Your task to perform on an android device: turn on priority inbox in the gmail app Image 0: 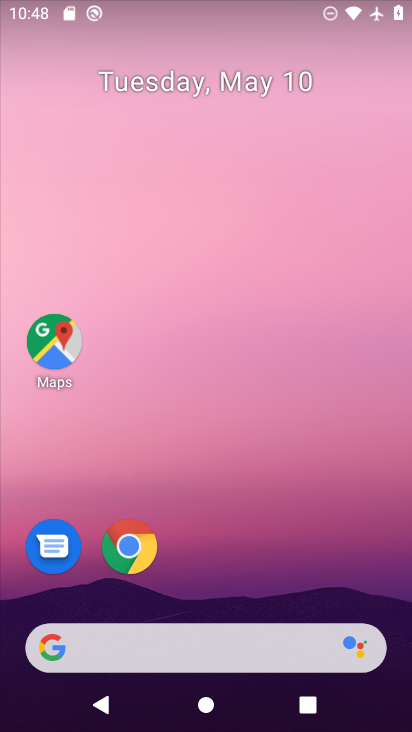
Step 0: drag from (301, 578) to (328, 130)
Your task to perform on an android device: turn on priority inbox in the gmail app Image 1: 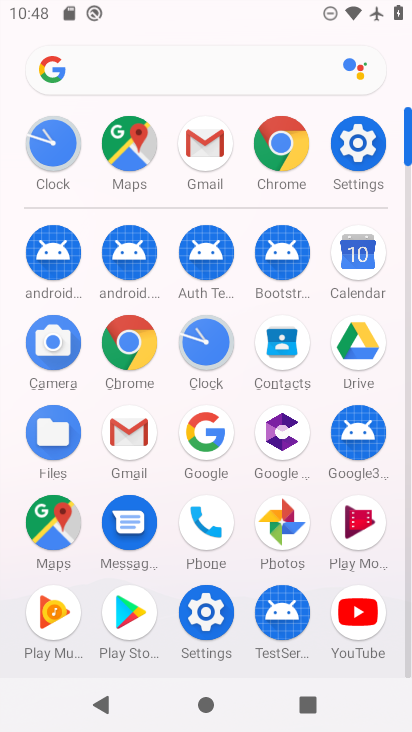
Step 1: click (117, 428)
Your task to perform on an android device: turn on priority inbox in the gmail app Image 2: 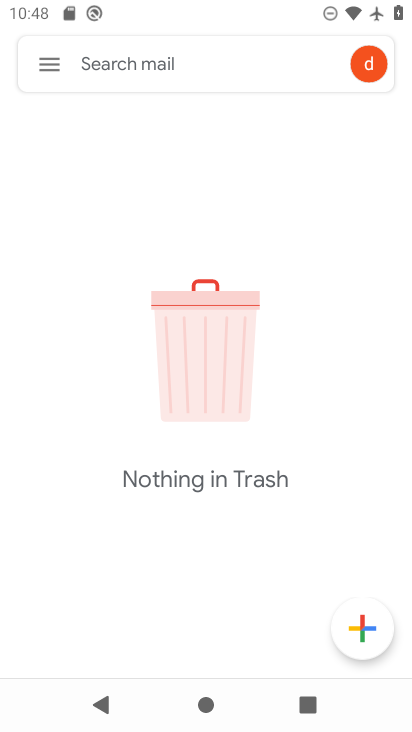
Step 2: click (57, 64)
Your task to perform on an android device: turn on priority inbox in the gmail app Image 3: 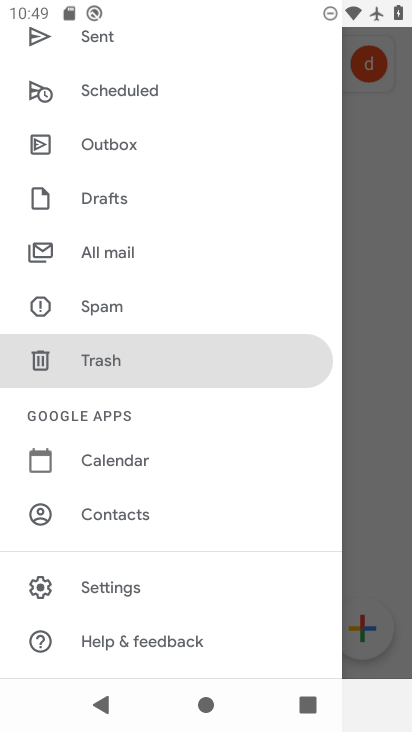
Step 3: click (141, 586)
Your task to perform on an android device: turn on priority inbox in the gmail app Image 4: 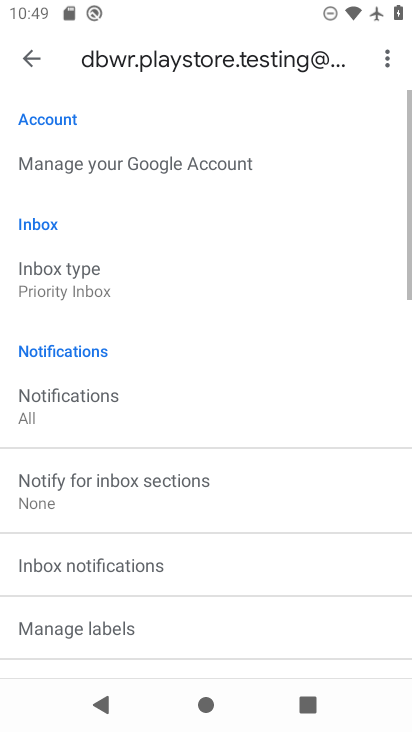
Step 4: click (132, 286)
Your task to perform on an android device: turn on priority inbox in the gmail app Image 5: 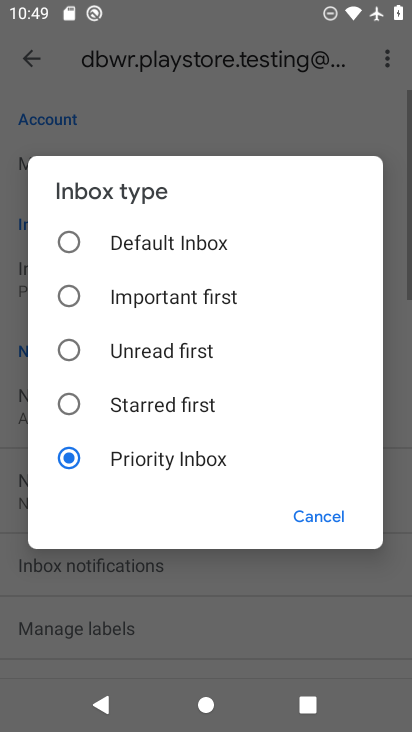
Step 5: task complete